Your task to perform on an android device: Open Android settings Image 0: 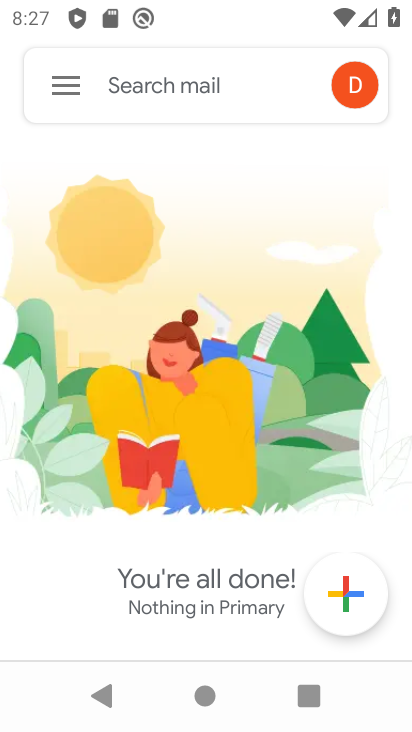
Step 0: press home button
Your task to perform on an android device: Open Android settings Image 1: 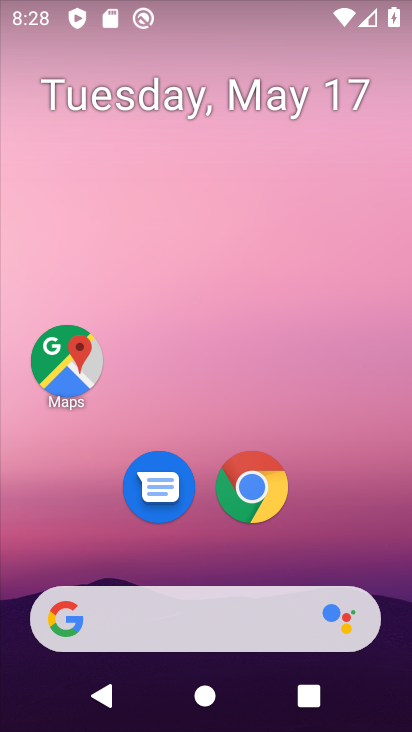
Step 1: drag from (241, 647) to (393, 138)
Your task to perform on an android device: Open Android settings Image 2: 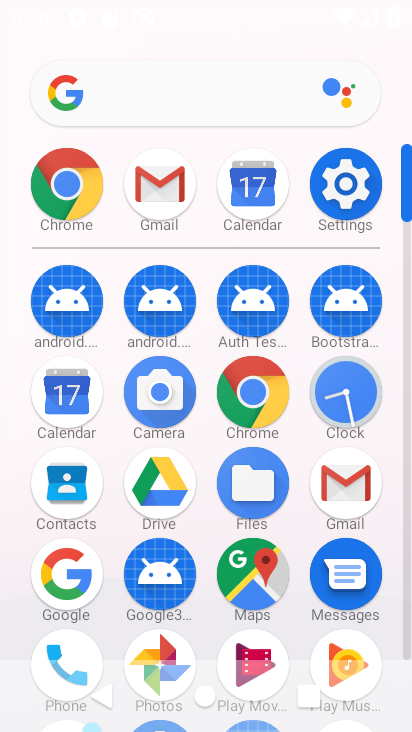
Step 2: click (349, 182)
Your task to perform on an android device: Open Android settings Image 3: 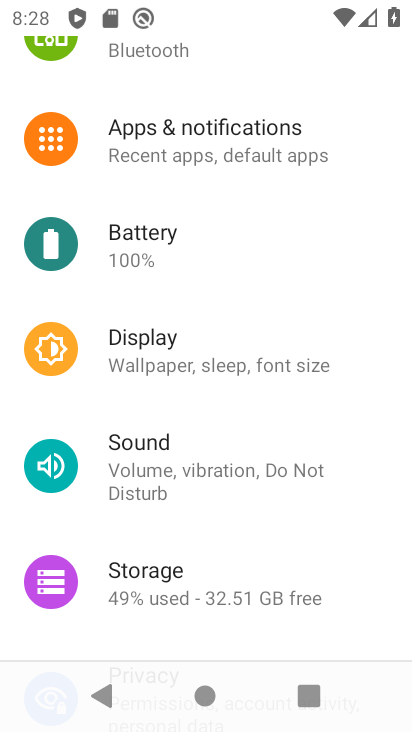
Step 3: drag from (204, 122) to (165, 328)
Your task to perform on an android device: Open Android settings Image 4: 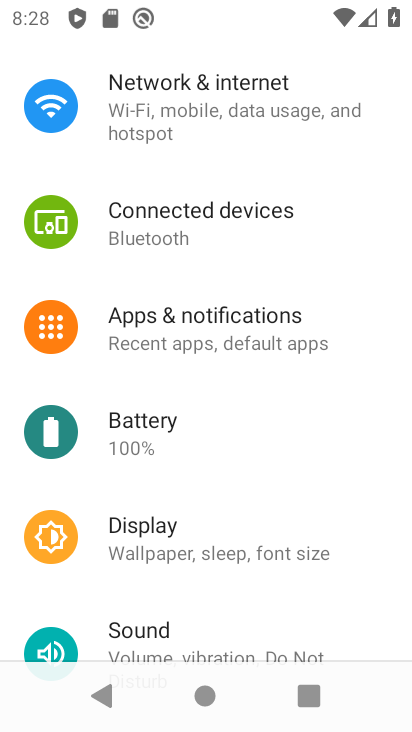
Step 4: drag from (155, 102) to (132, 372)
Your task to perform on an android device: Open Android settings Image 5: 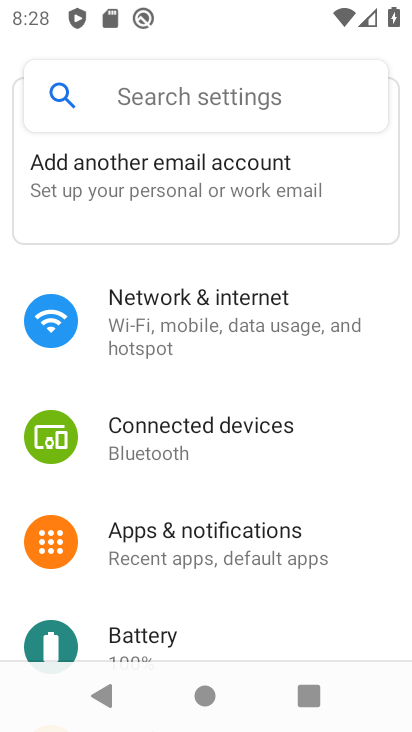
Step 5: click (139, 86)
Your task to perform on an android device: Open Android settings Image 6: 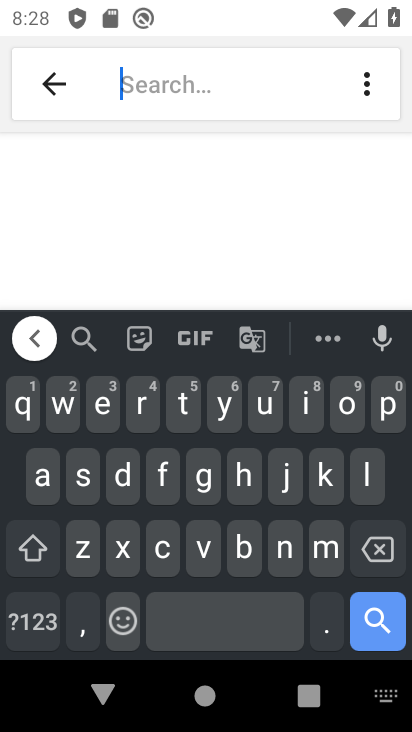
Step 6: click (39, 478)
Your task to perform on an android device: Open Android settings Image 7: 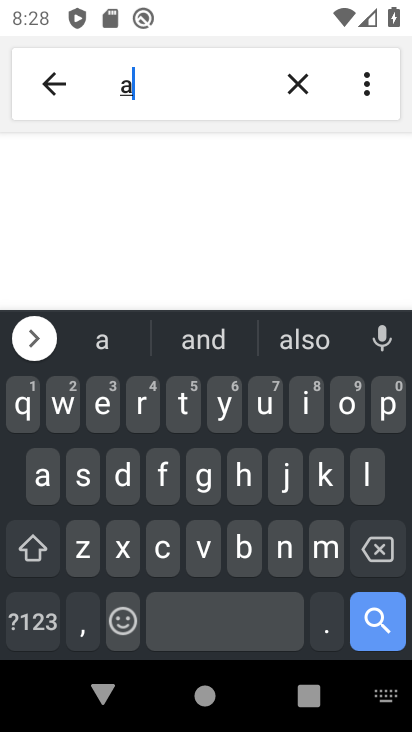
Step 7: click (293, 549)
Your task to perform on an android device: Open Android settings Image 8: 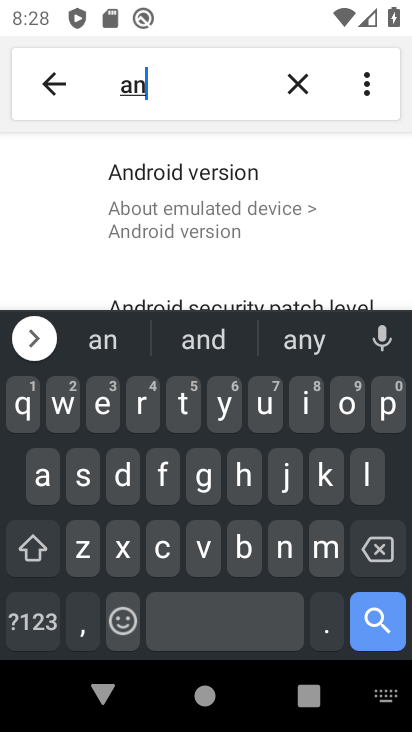
Step 8: click (168, 174)
Your task to perform on an android device: Open Android settings Image 9: 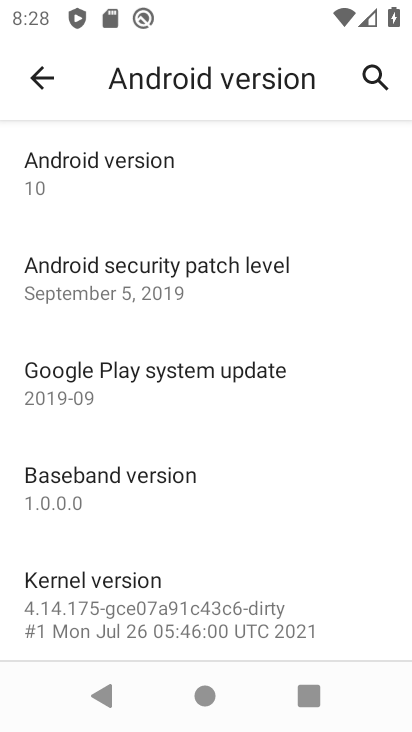
Step 9: click (145, 188)
Your task to perform on an android device: Open Android settings Image 10: 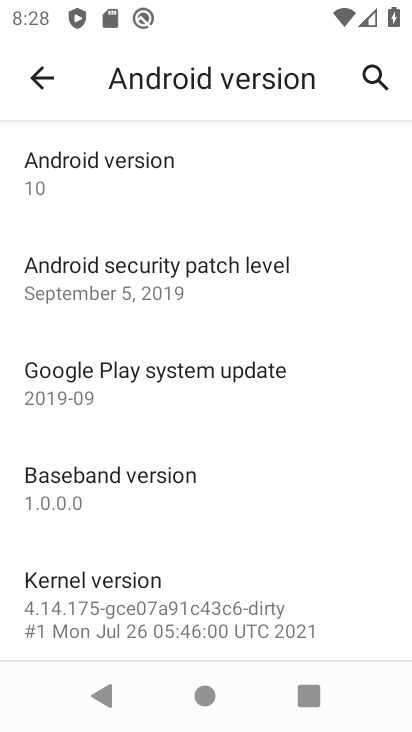
Step 10: task complete